Your task to perform on an android device: Open maps Image 0: 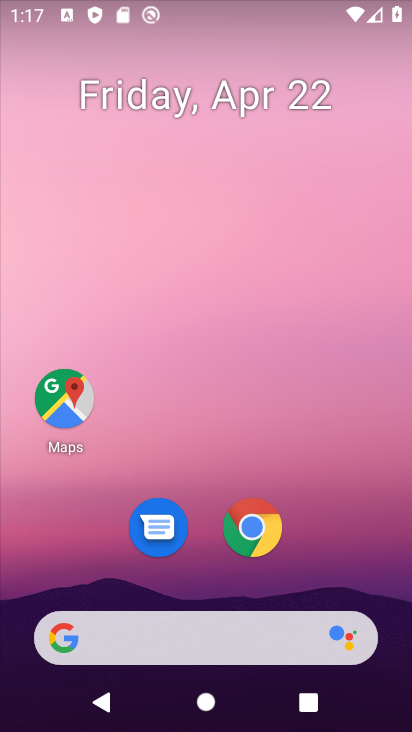
Step 0: press home button
Your task to perform on an android device: Open maps Image 1: 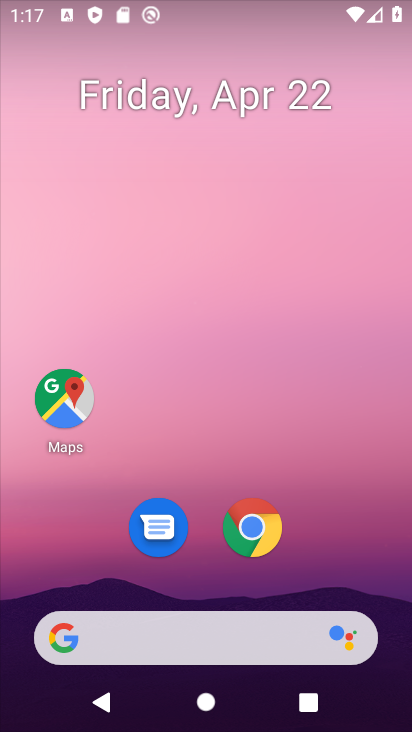
Step 1: click (140, 172)
Your task to perform on an android device: Open maps Image 2: 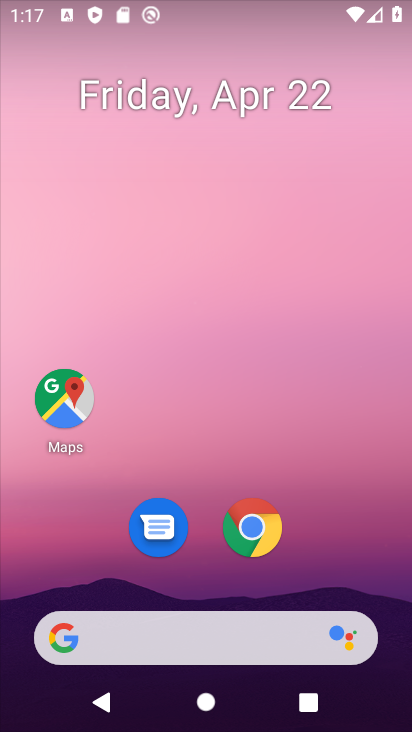
Step 2: click (53, 406)
Your task to perform on an android device: Open maps Image 3: 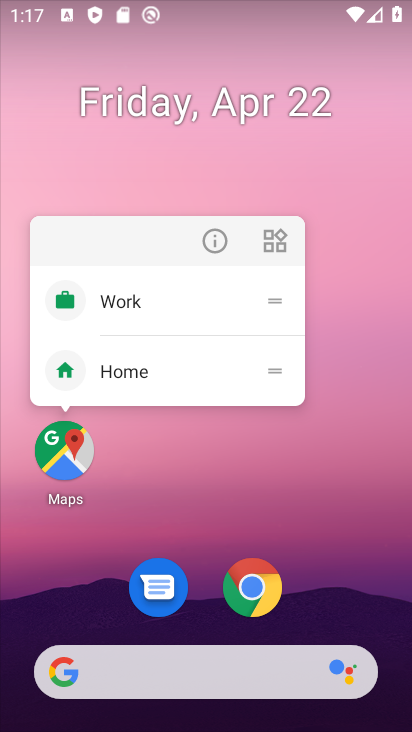
Step 3: click (218, 232)
Your task to perform on an android device: Open maps Image 4: 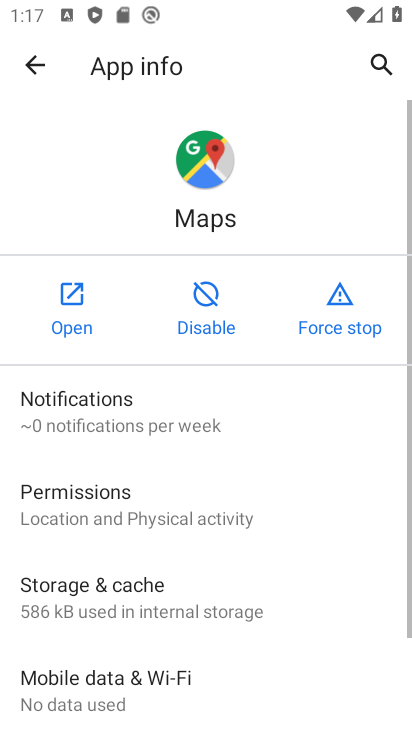
Step 4: click (51, 327)
Your task to perform on an android device: Open maps Image 5: 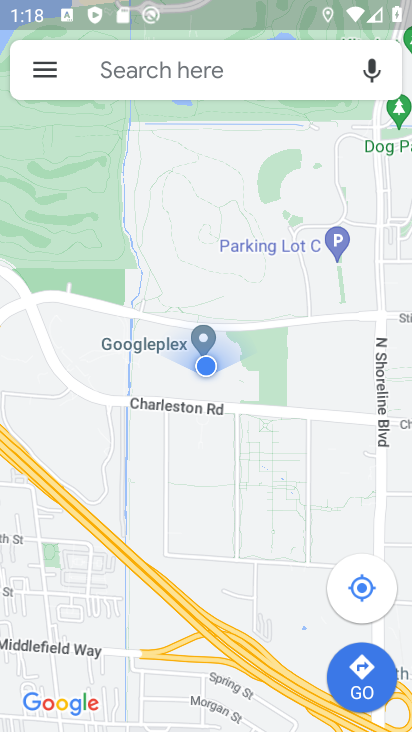
Step 5: task complete